Your task to perform on an android device: uninstall "AliExpress" Image 0: 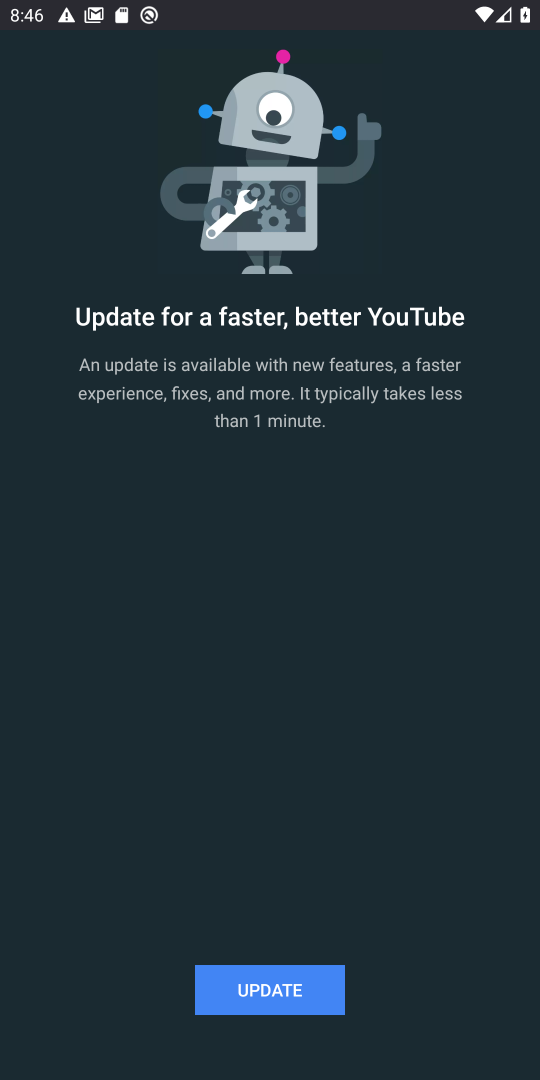
Step 0: press back button
Your task to perform on an android device: uninstall "AliExpress" Image 1: 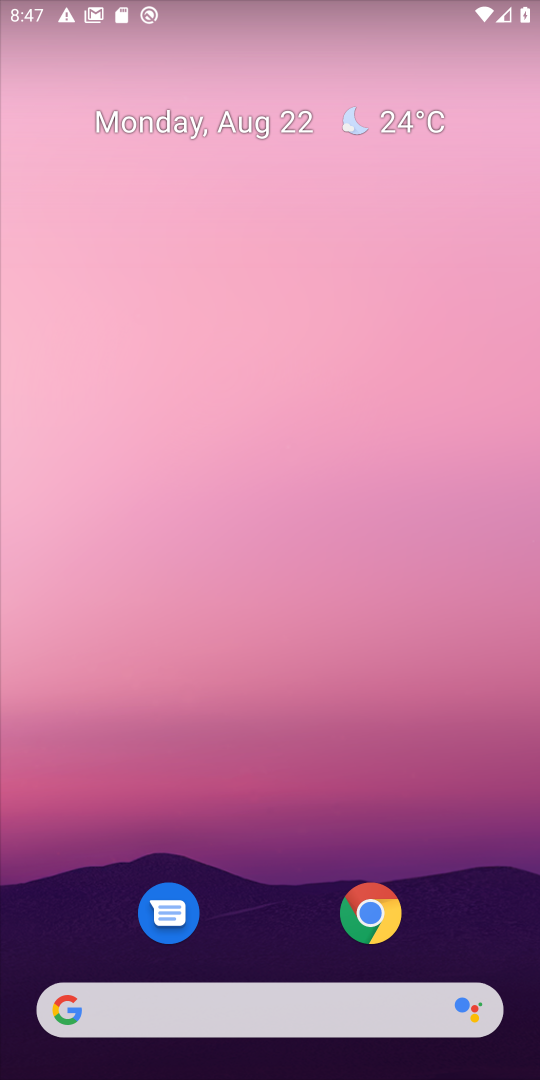
Step 1: drag from (342, 892) to (366, 305)
Your task to perform on an android device: uninstall "AliExpress" Image 2: 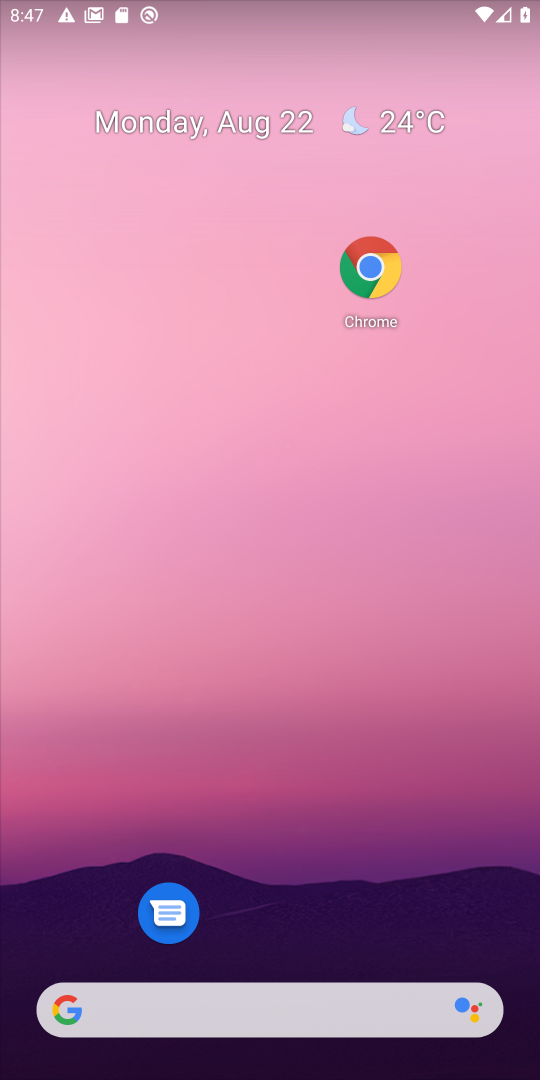
Step 2: drag from (273, 1009) to (90, 27)
Your task to perform on an android device: uninstall "AliExpress" Image 3: 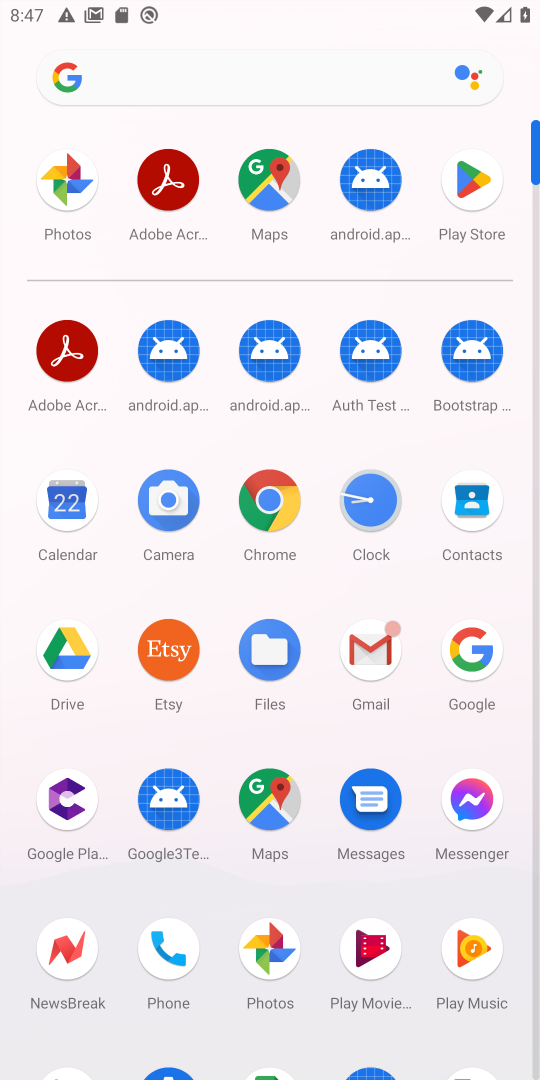
Step 3: click (452, 190)
Your task to perform on an android device: uninstall "AliExpress" Image 4: 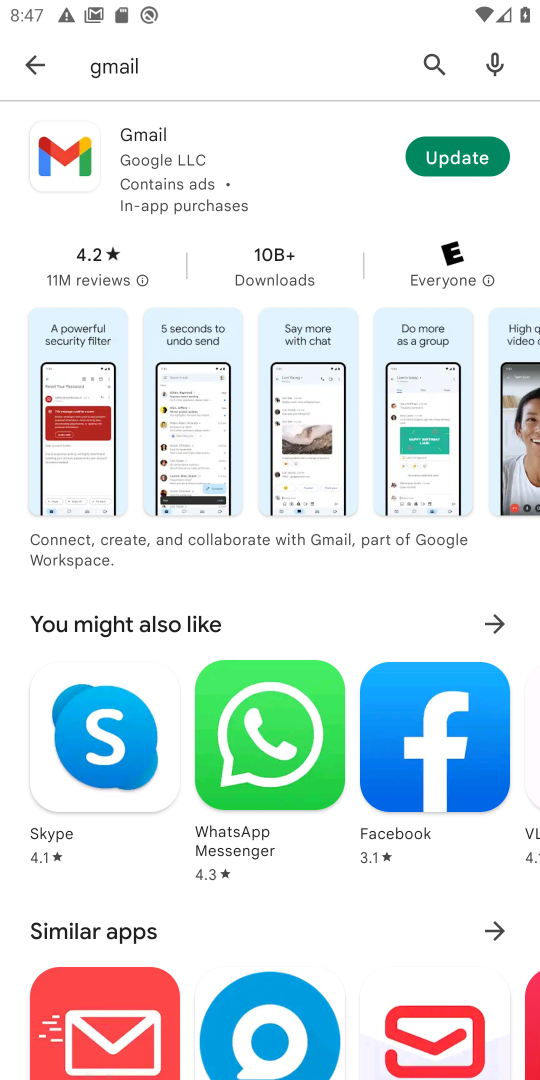
Step 4: click (437, 76)
Your task to perform on an android device: uninstall "AliExpress" Image 5: 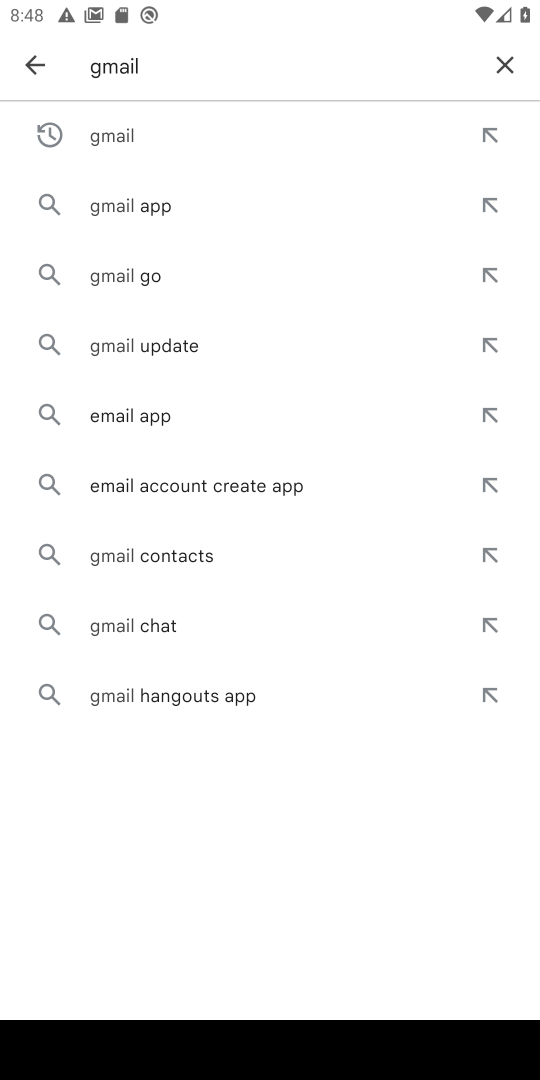
Step 5: click (507, 73)
Your task to perform on an android device: uninstall "AliExpress" Image 6: 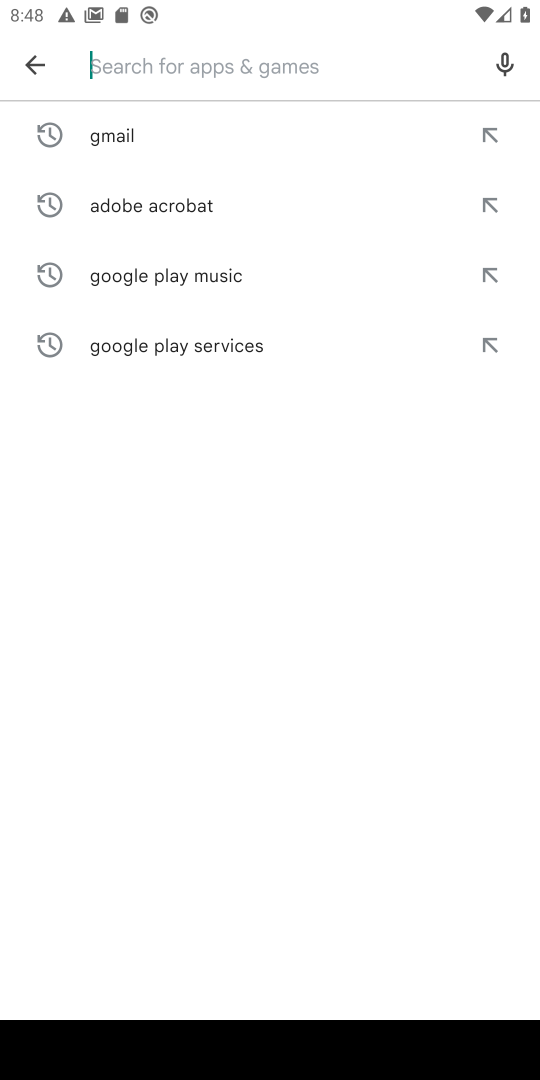
Step 6: type "aliexpress"
Your task to perform on an android device: uninstall "AliExpress" Image 7: 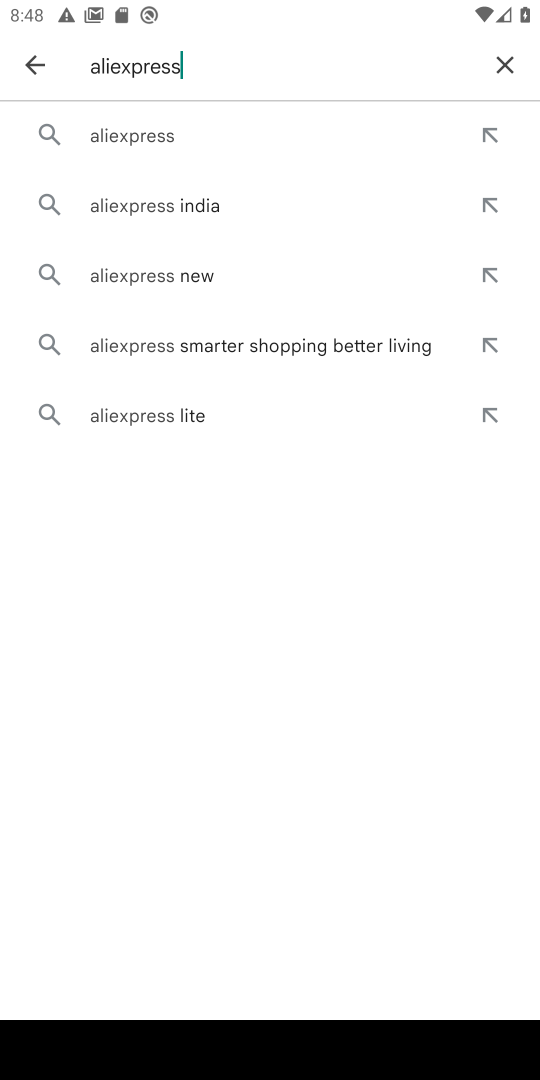
Step 7: click (149, 141)
Your task to perform on an android device: uninstall "AliExpress" Image 8: 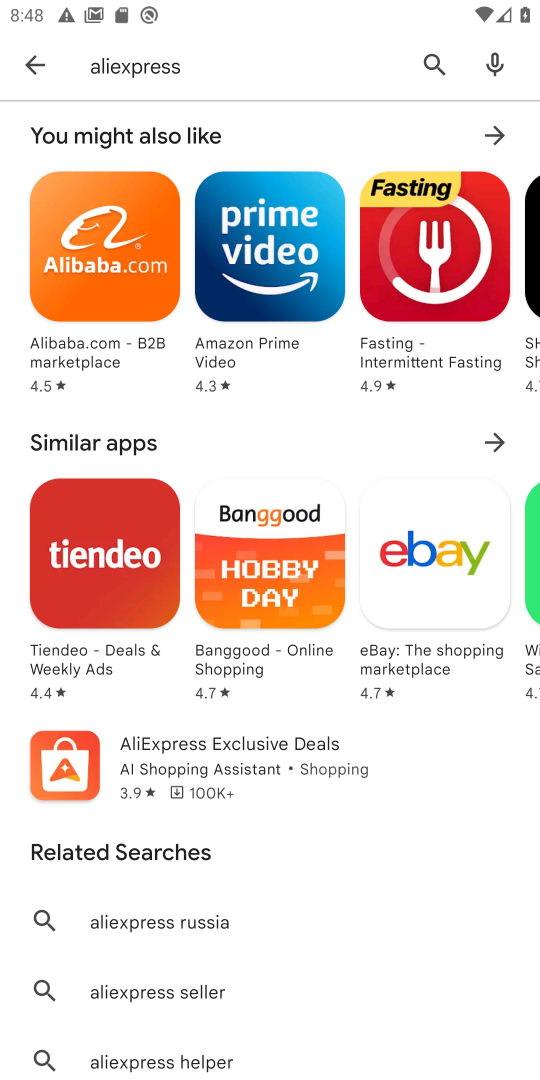
Step 8: click (116, 304)
Your task to perform on an android device: uninstall "AliExpress" Image 9: 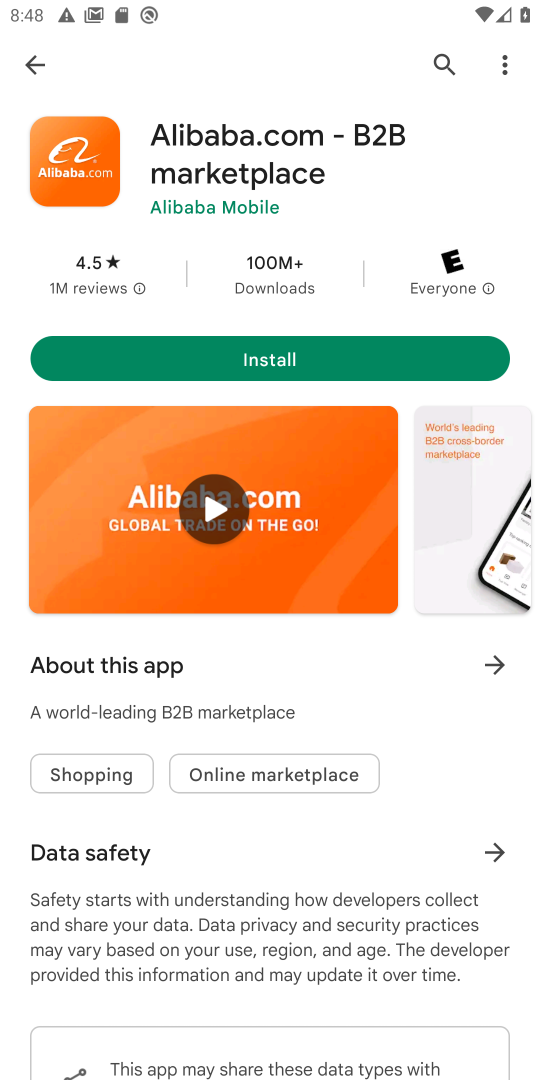
Step 9: click (33, 60)
Your task to perform on an android device: uninstall "AliExpress" Image 10: 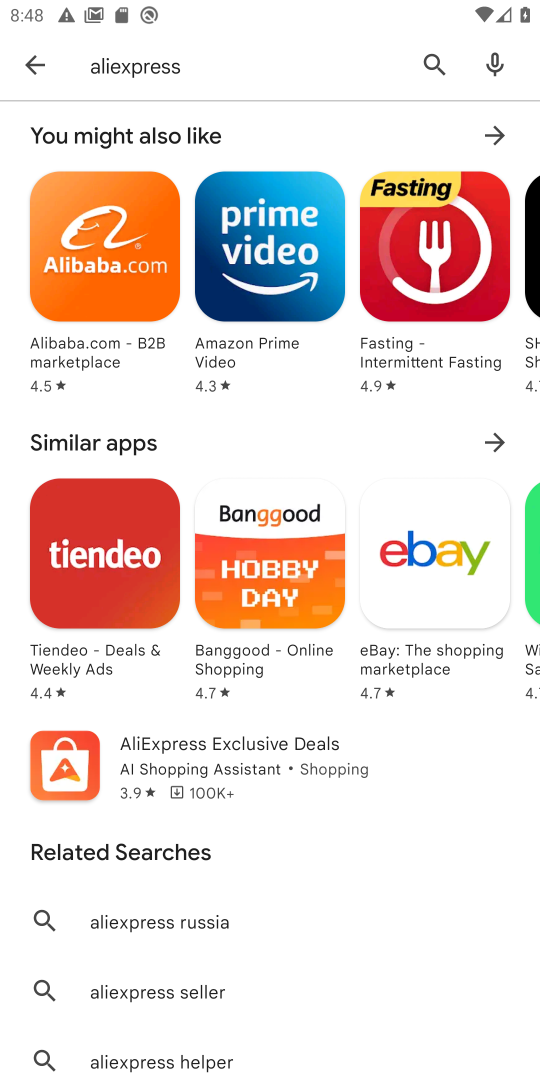
Step 10: task complete